Your task to perform on an android device: Go to Reddit.com Image 0: 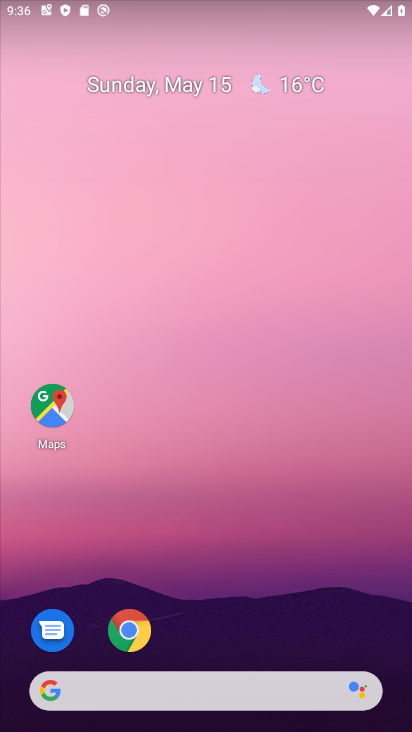
Step 0: click (126, 626)
Your task to perform on an android device: Go to Reddit.com Image 1: 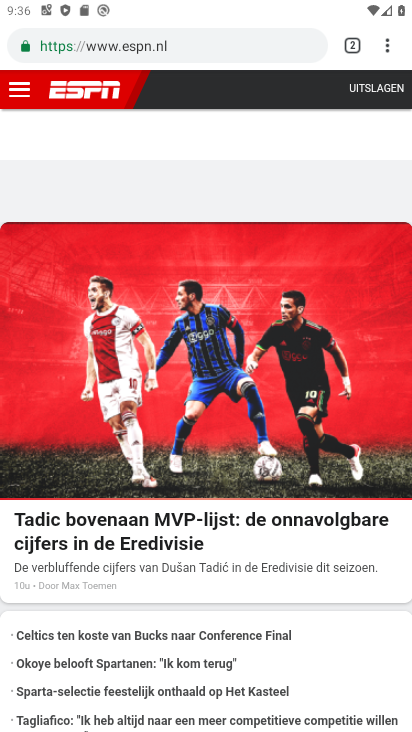
Step 1: click (347, 43)
Your task to perform on an android device: Go to Reddit.com Image 2: 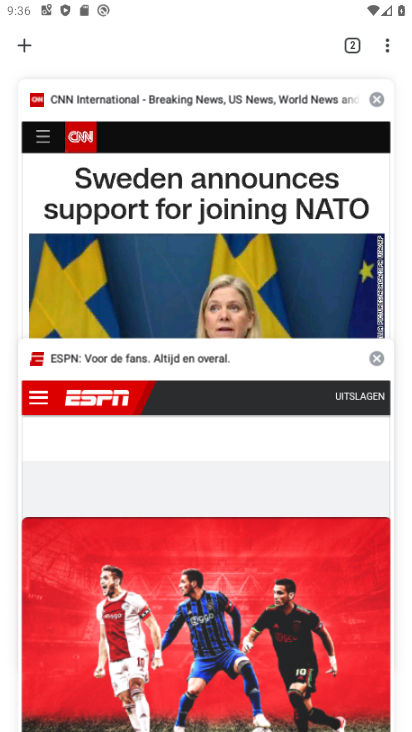
Step 2: click (25, 48)
Your task to perform on an android device: Go to Reddit.com Image 3: 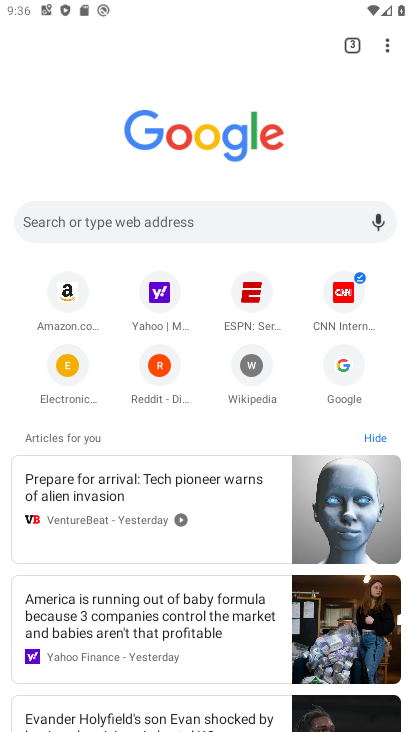
Step 3: click (176, 211)
Your task to perform on an android device: Go to Reddit.com Image 4: 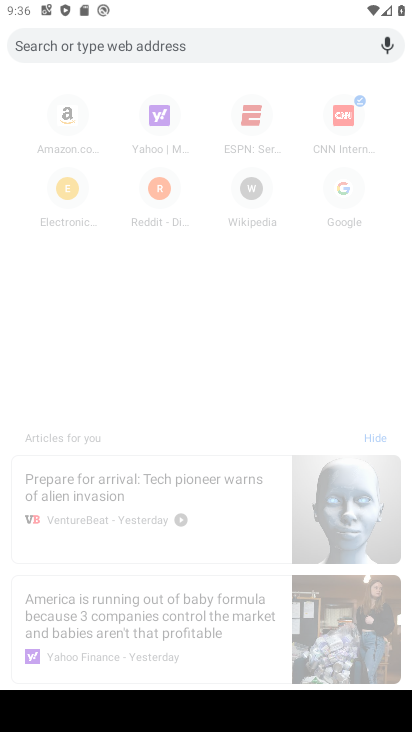
Step 4: type "Reddit.com"
Your task to perform on an android device: Go to Reddit.com Image 5: 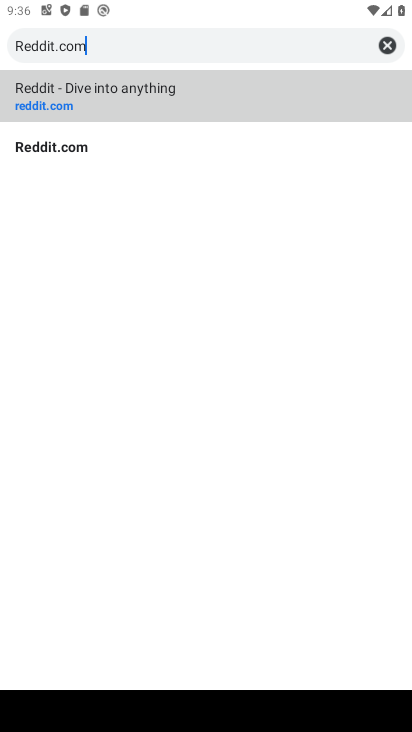
Step 5: click (100, 141)
Your task to perform on an android device: Go to Reddit.com Image 6: 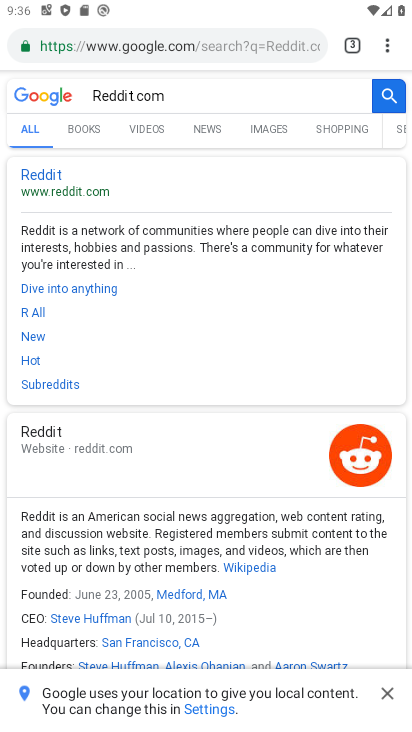
Step 6: click (44, 172)
Your task to perform on an android device: Go to Reddit.com Image 7: 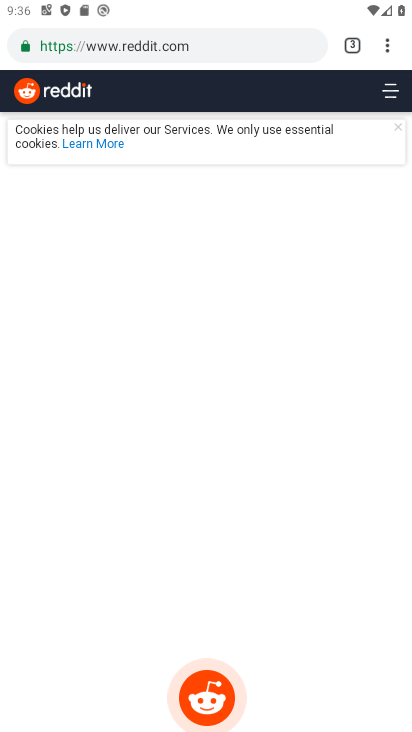
Step 7: task complete